Your task to perform on an android device: turn off notifications settings in the gmail app Image 0: 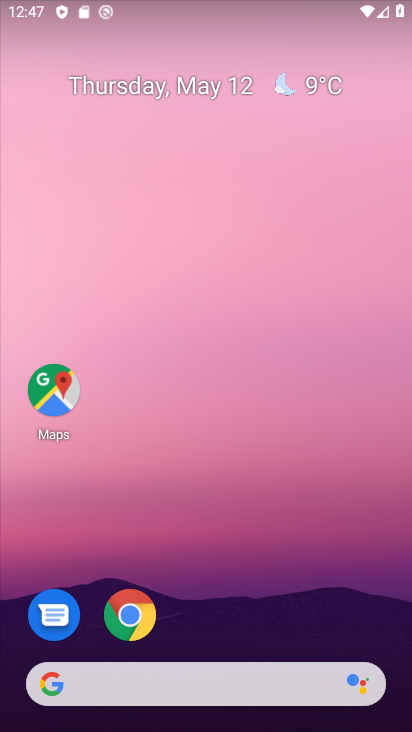
Step 0: drag from (247, 568) to (240, 99)
Your task to perform on an android device: turn off notifications settings in the gmail app Image 1: 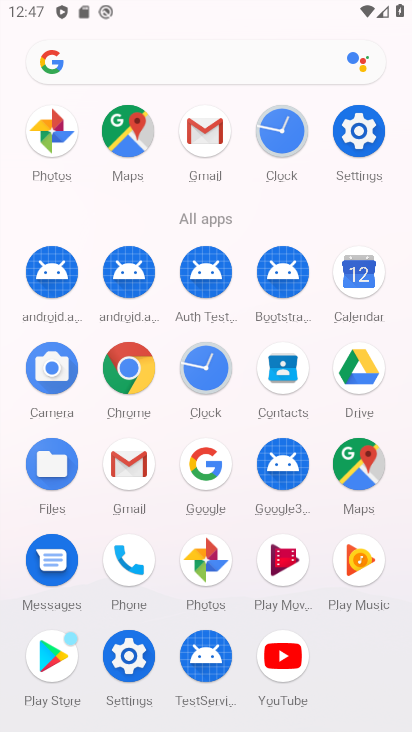
Step 1: click (128, 459)
Your task to perform on an android device: turn off notifications settings in the gmail app Image 2: 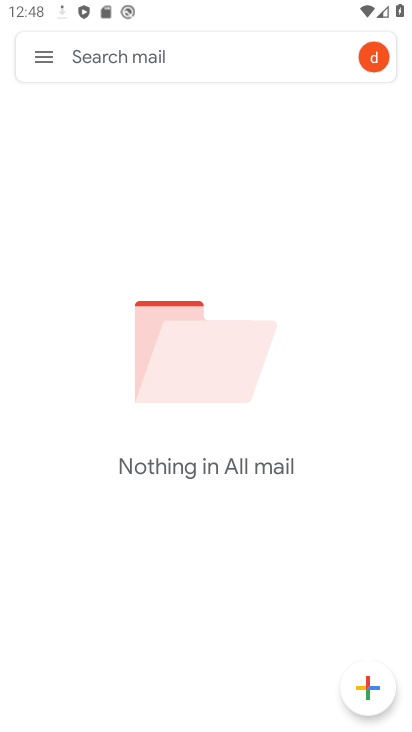
Step 2: click (45, 58)
Your task to perform on an android device: turn off notifications settings in the gmail app Image 3: 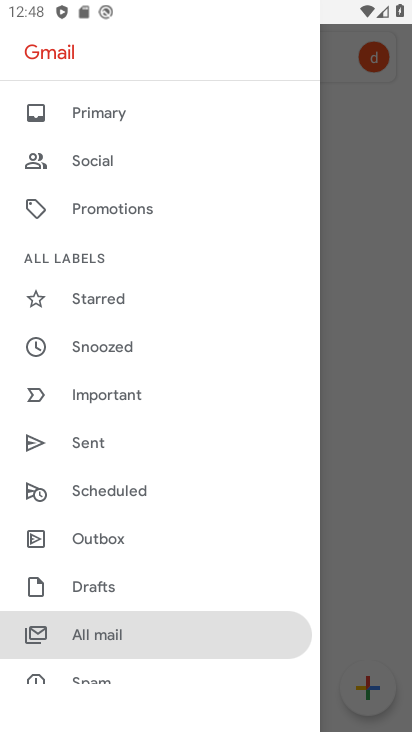
Step 3: drag from (112, 571) to (151, 174)
Your task to perform on an android device: turn off notifications settings in the gmail app Image 4: 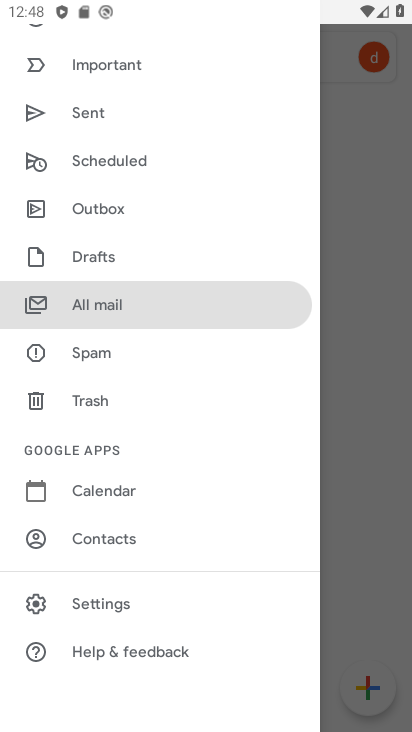
Step 4: click (104, 596)
Your task to perform on an android device: turn off notifications settings in the gmail app Image 5: 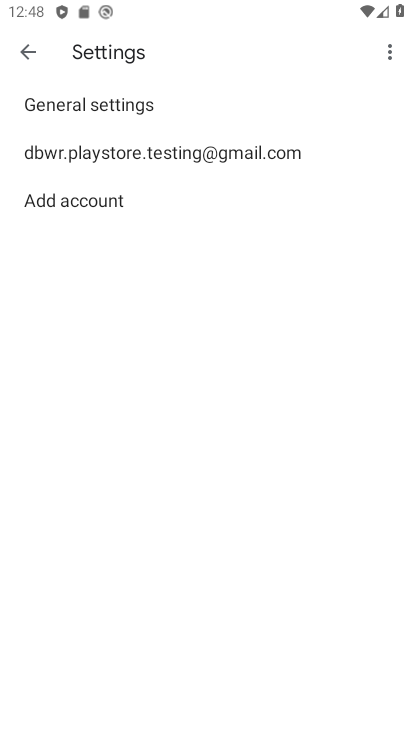
Step 5: click (207, 147)
Your task to perform on an android device: turn off notifications settings in the gmail app Image 6: 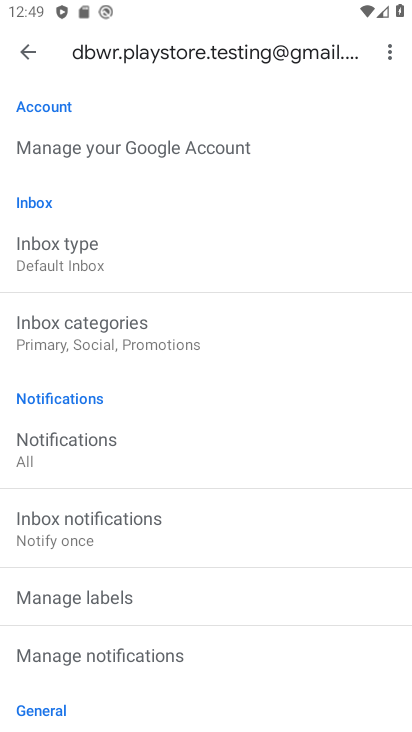
Step 6: click (129, 647)
Your task to perform on an android device: turn off notifications settings in the gmail app Image 7: 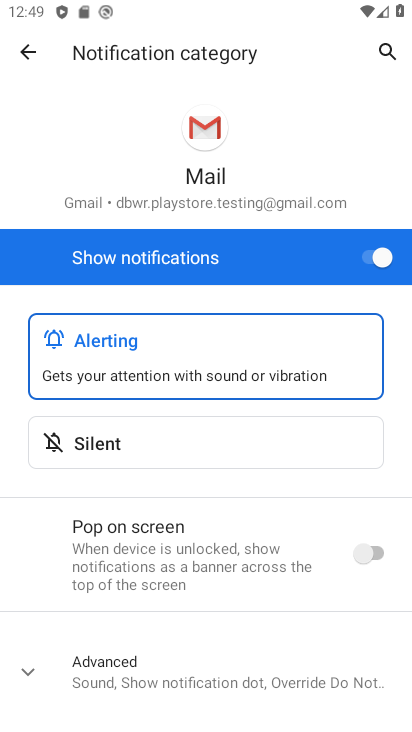
Step 7: click (372, 251)
Your task to perform on an android device: turn off notifications settings in the gmail app Image 8: 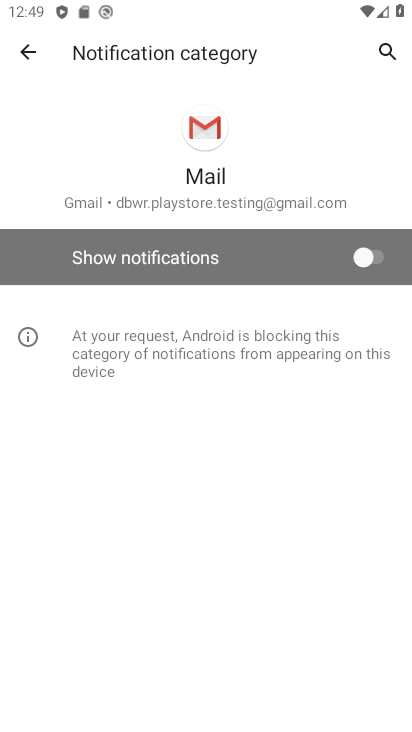
Step 8: task complete